Your task to perform on an android device: Set the phone to "Do not disturb". Image 0: 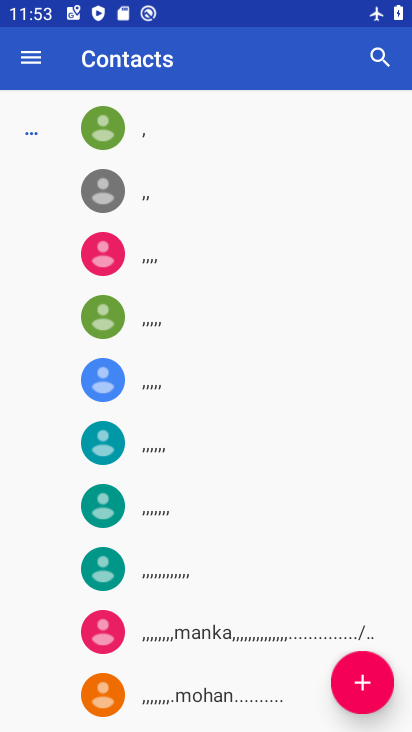
Step 0: press home button
Your task to perform on an android device: Set the phone to "Do not disturb". Image 1: 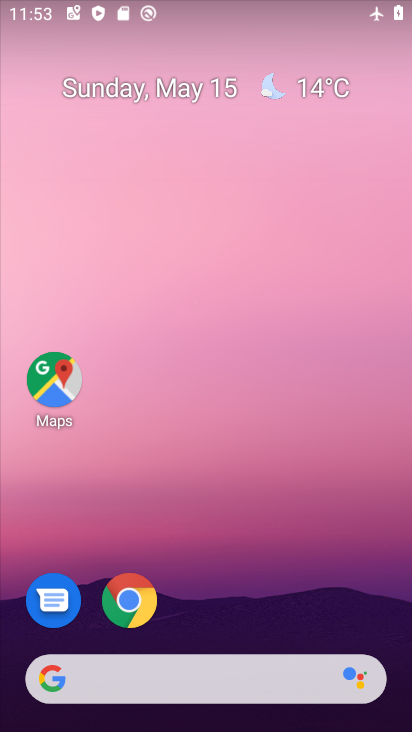
Step 1: drag from (391, 634) to (311, 59)
Your task to perform on an android device: Set the phone to "Do not disturb". Image 2: 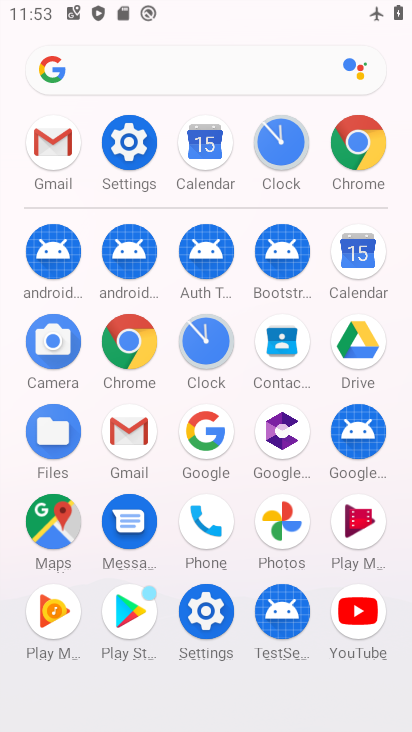
Step 2: click (207, 615)
Your task to perform on an android device: Set the phone to "Do not disturb". Image 3: 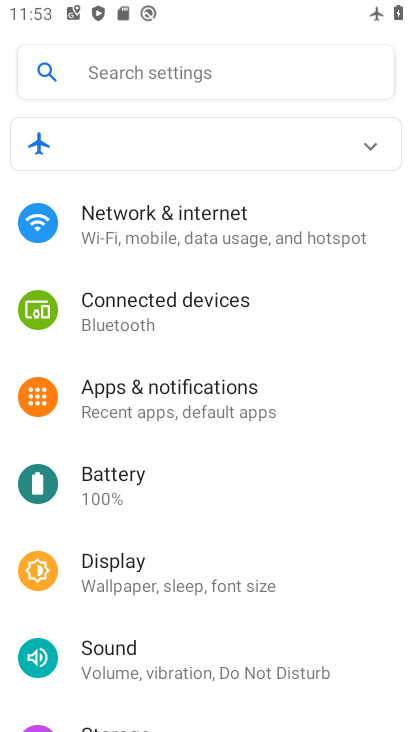
Step 3: drag from (313, 642) to (305, 444)
Your task to perform on an android device: Set the phone to "Do not disturb". Image 4: 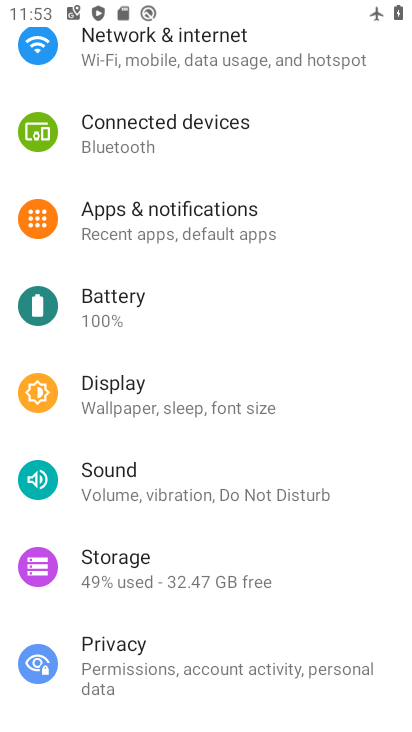
Step 4: click (111, 468)
Your task to perform on an android device: Set the phone to "Do not disturb". Image 5: 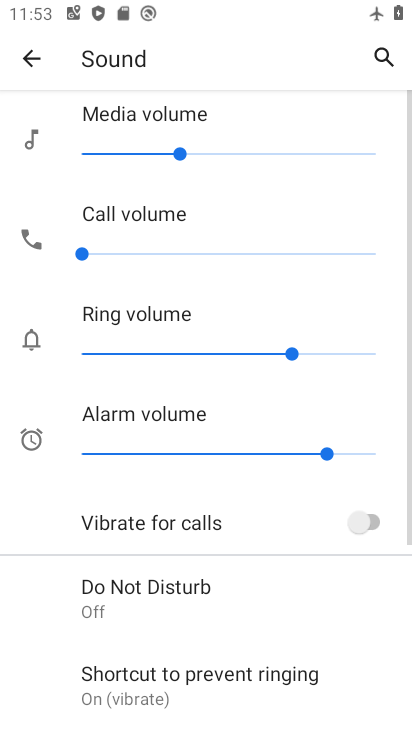
Step 5: drag from (336, 660) to (304, 300)
Your task to perform on an android device: Set the phone to "Do not disturb". Image 6: 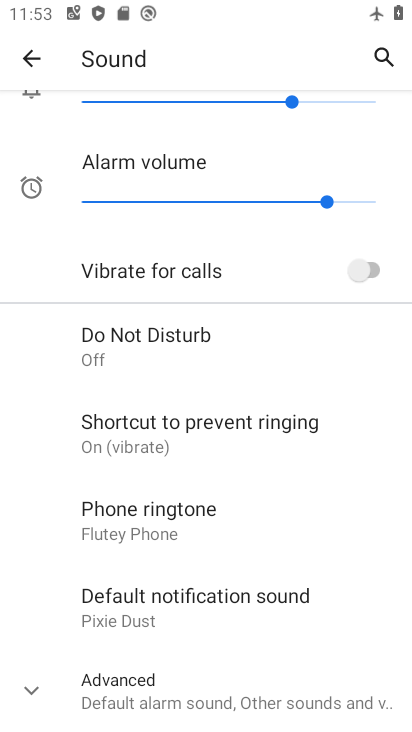
Step 6: click (114, 335)
Your task to perform on an android device: Set the phone to "Do not disturb". Image 7: 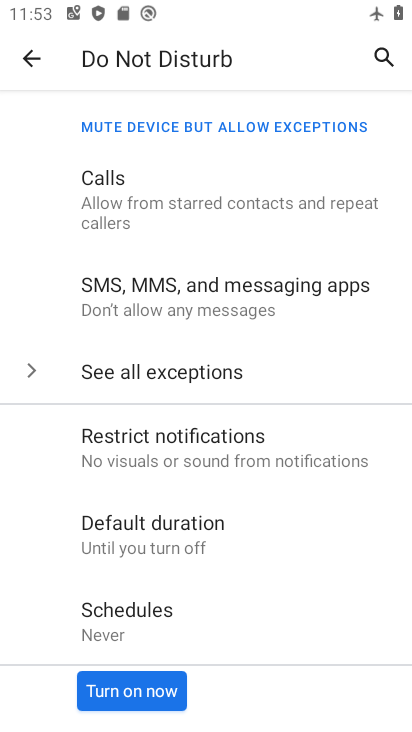
Step 7: click (129, 688)
Your task to perform on an android device: Set the phone to "Do not disturb". Image 8: 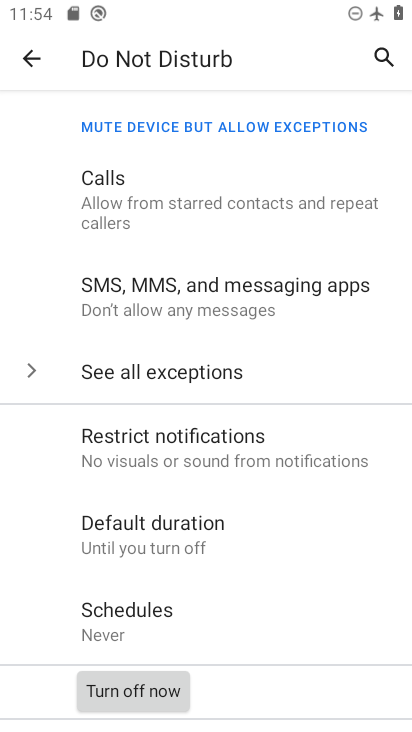
Step 8: task complete